Your task to perform on an android device: change notification settings in the gmail app Image 0: 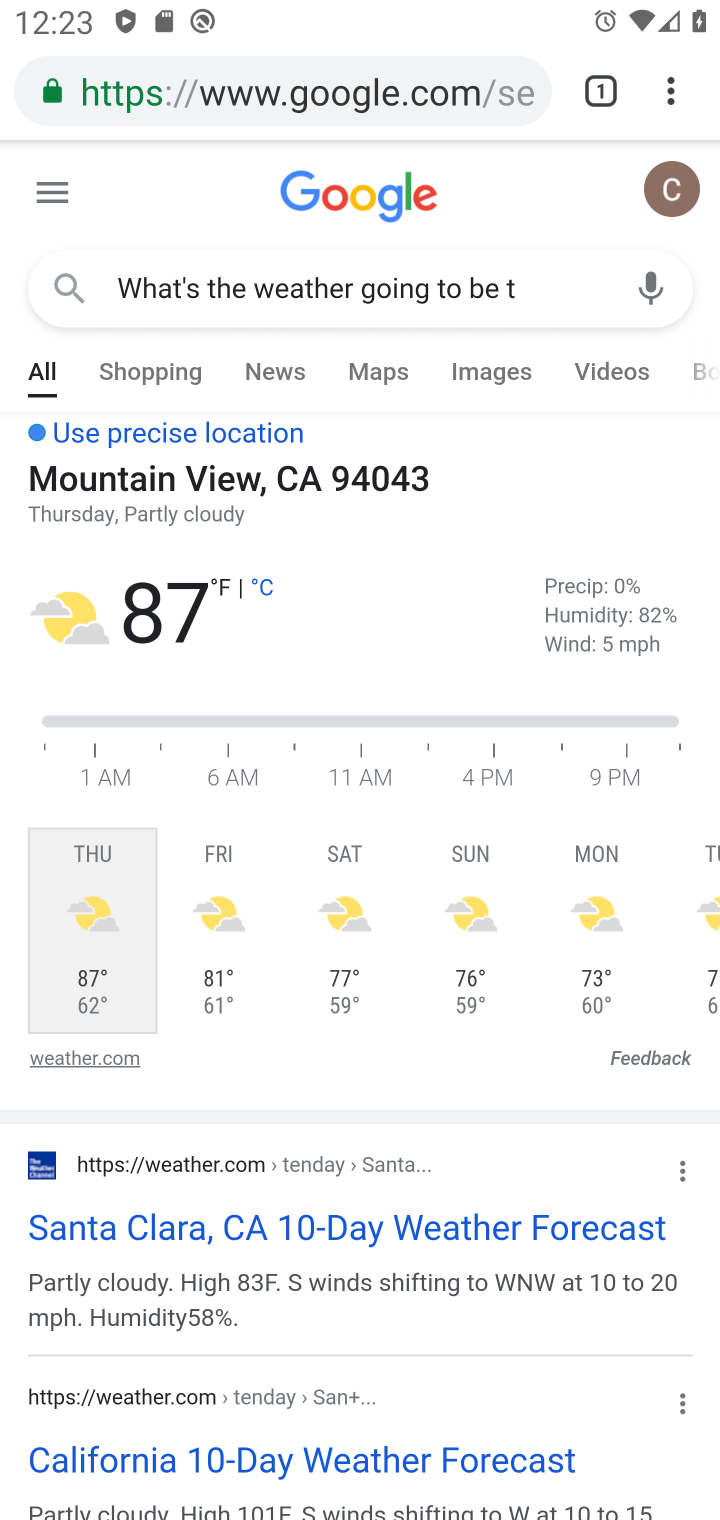
Step 0: press home button
Your task to perform on an android device: change notification settings in the gmail app Image 1: 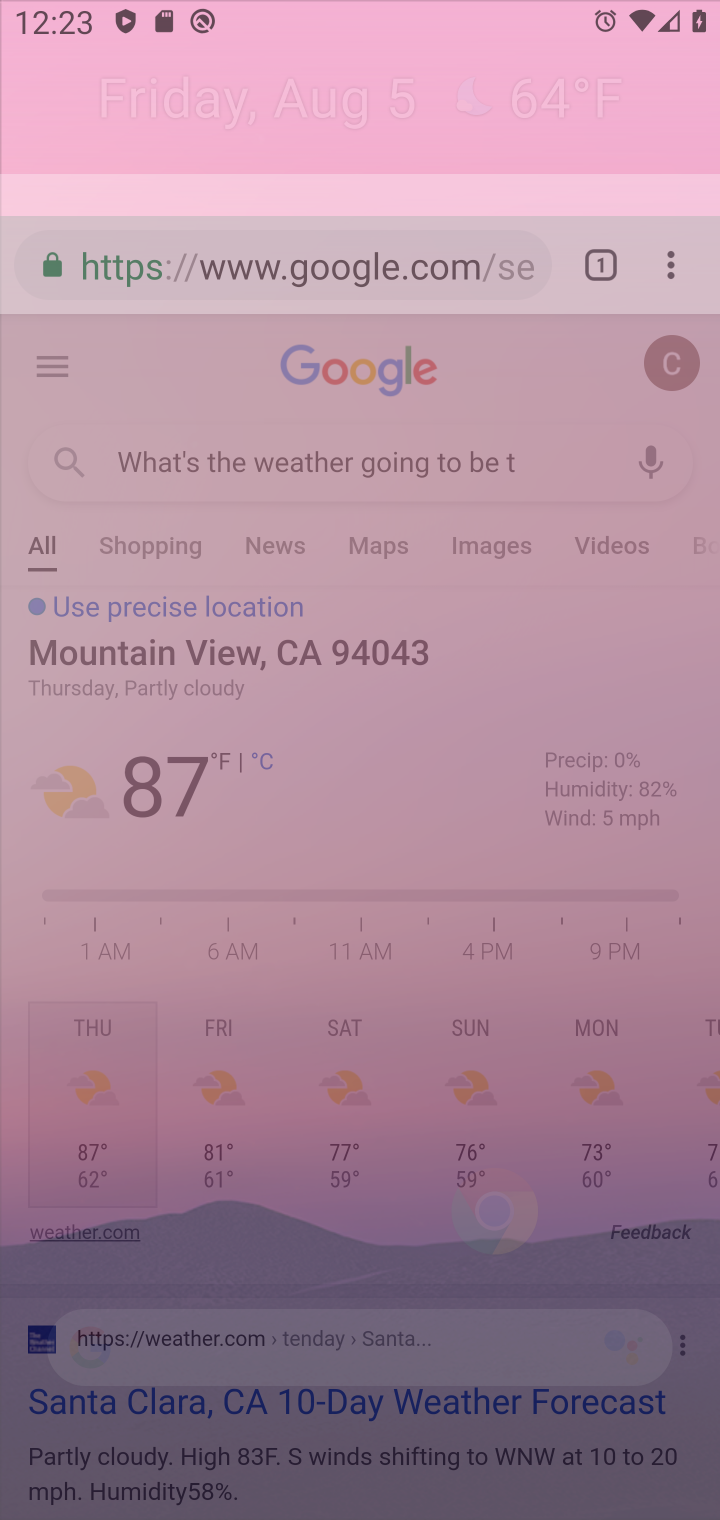
Step 1: drag from (341, 1435) to (360, 60)
Your task to perform on an android device: change notification settings in the gmail app Image 2: 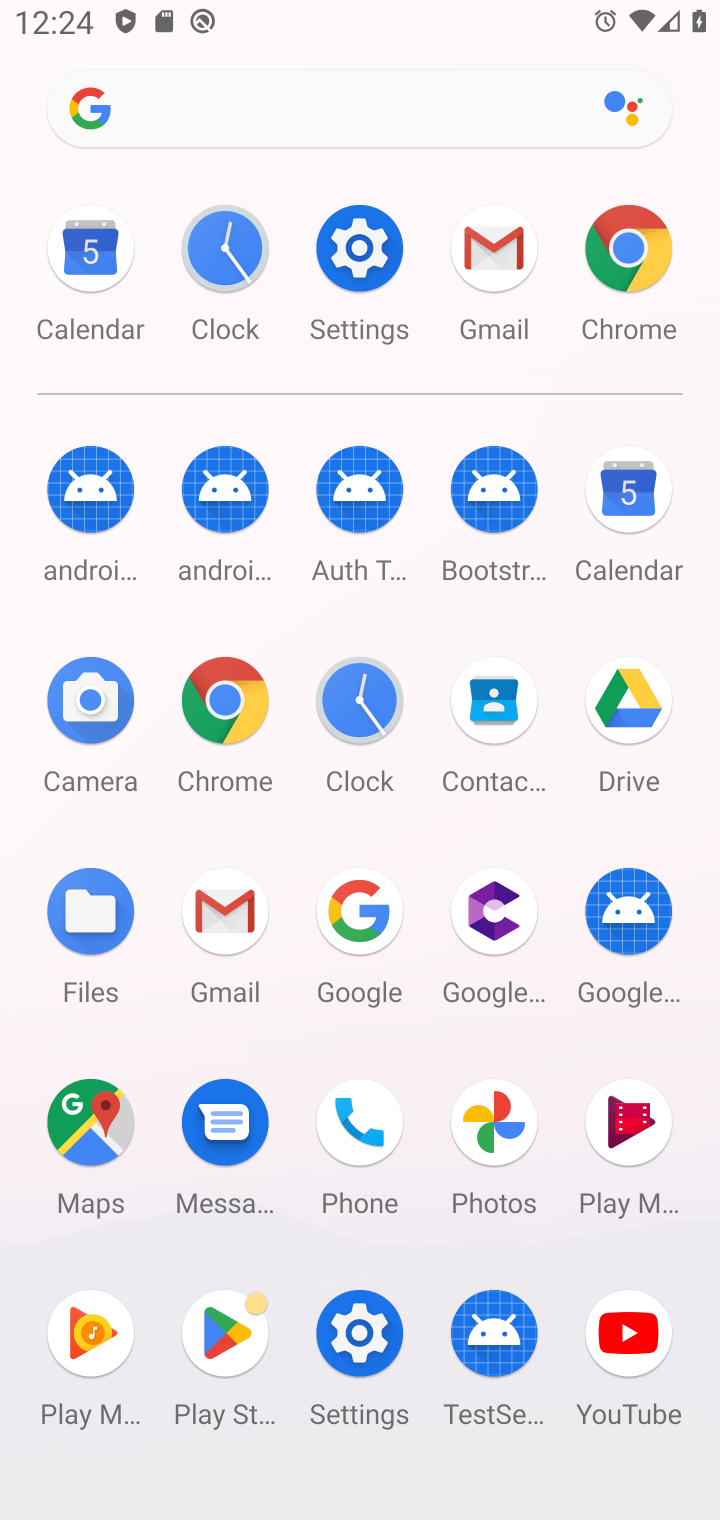
Step 2: click (225, 941)
Your task to perform on an android device: change notification settings in the gmail app Image 3: 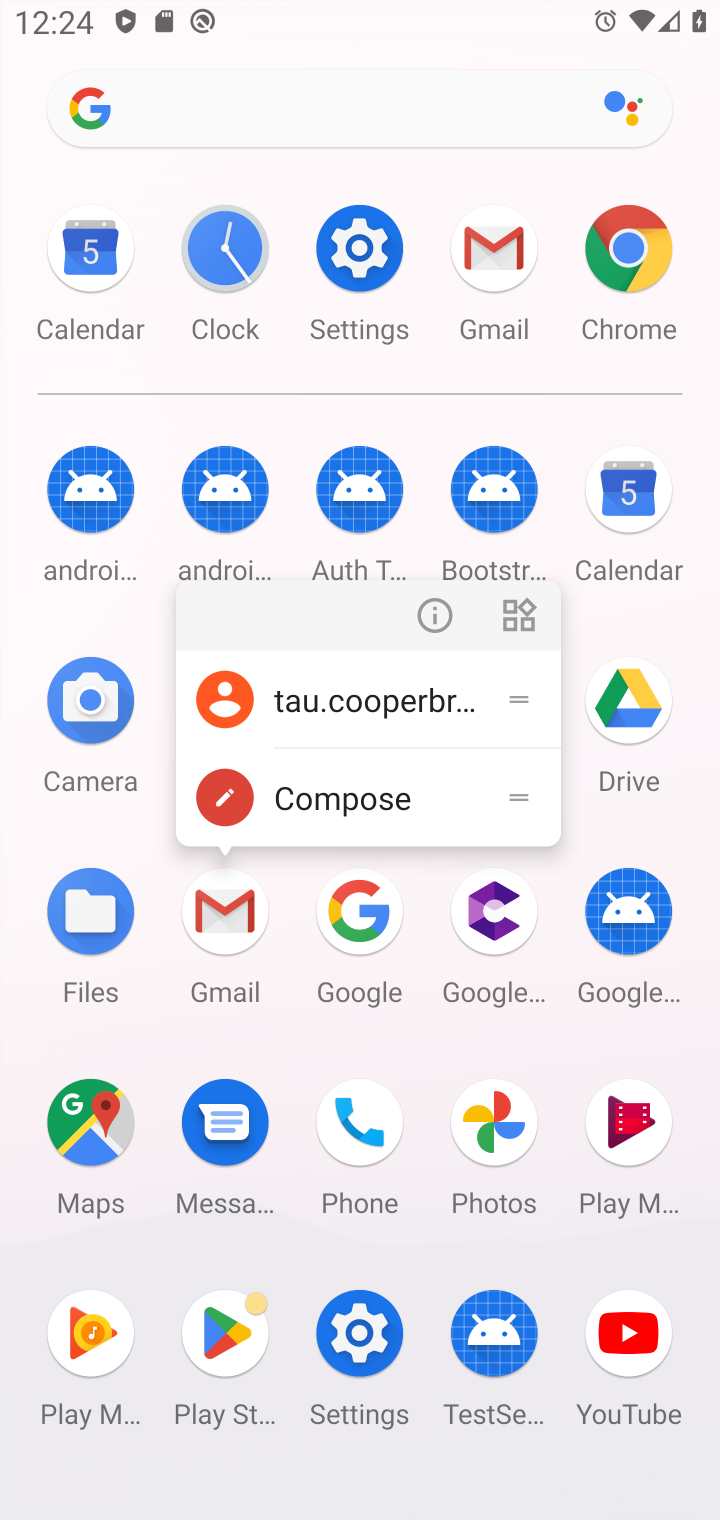
Step 3: click (209, 907)
Your task to perform on an android device: change notification settings in the gmail app Image 4: 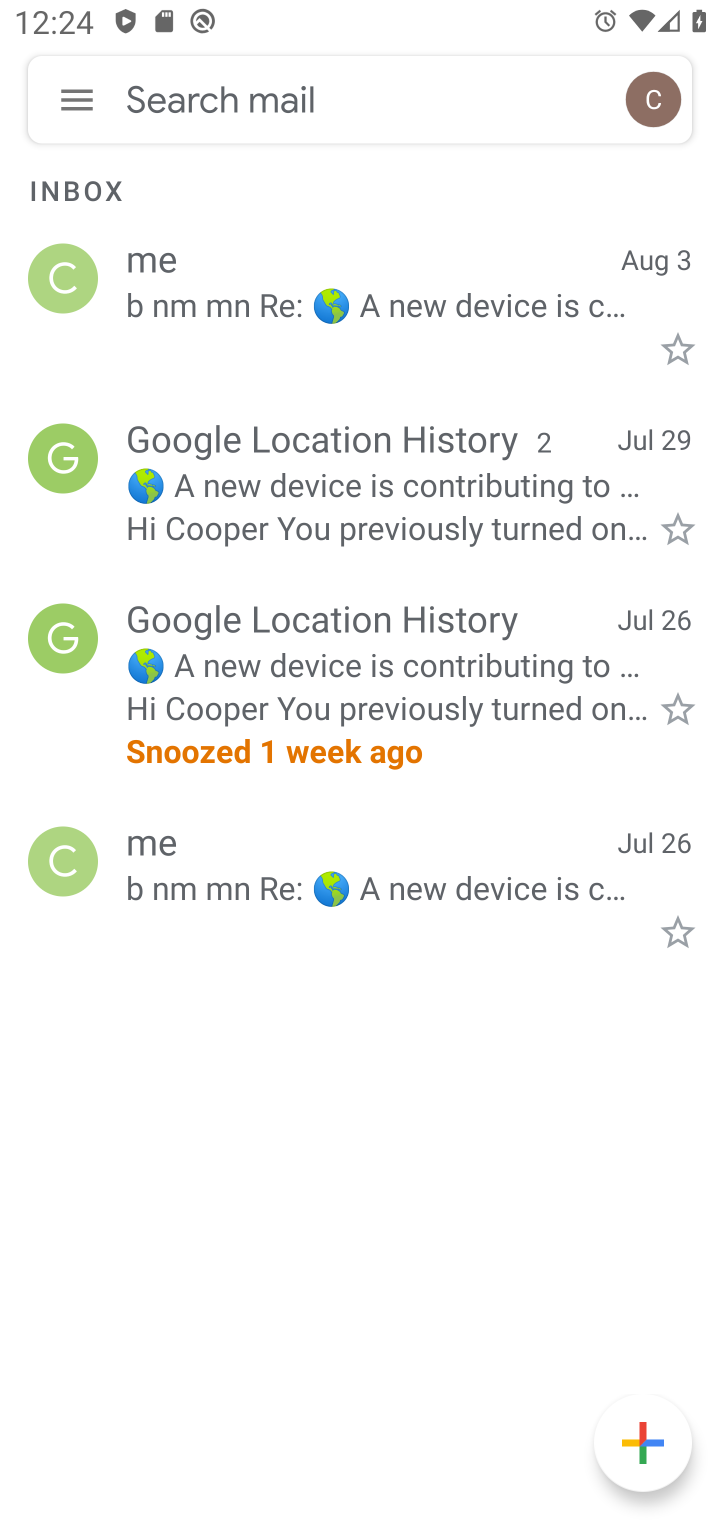
Step 4: press home button
Your task to perform on an android device: change notification settings in the gmail app Image 5: 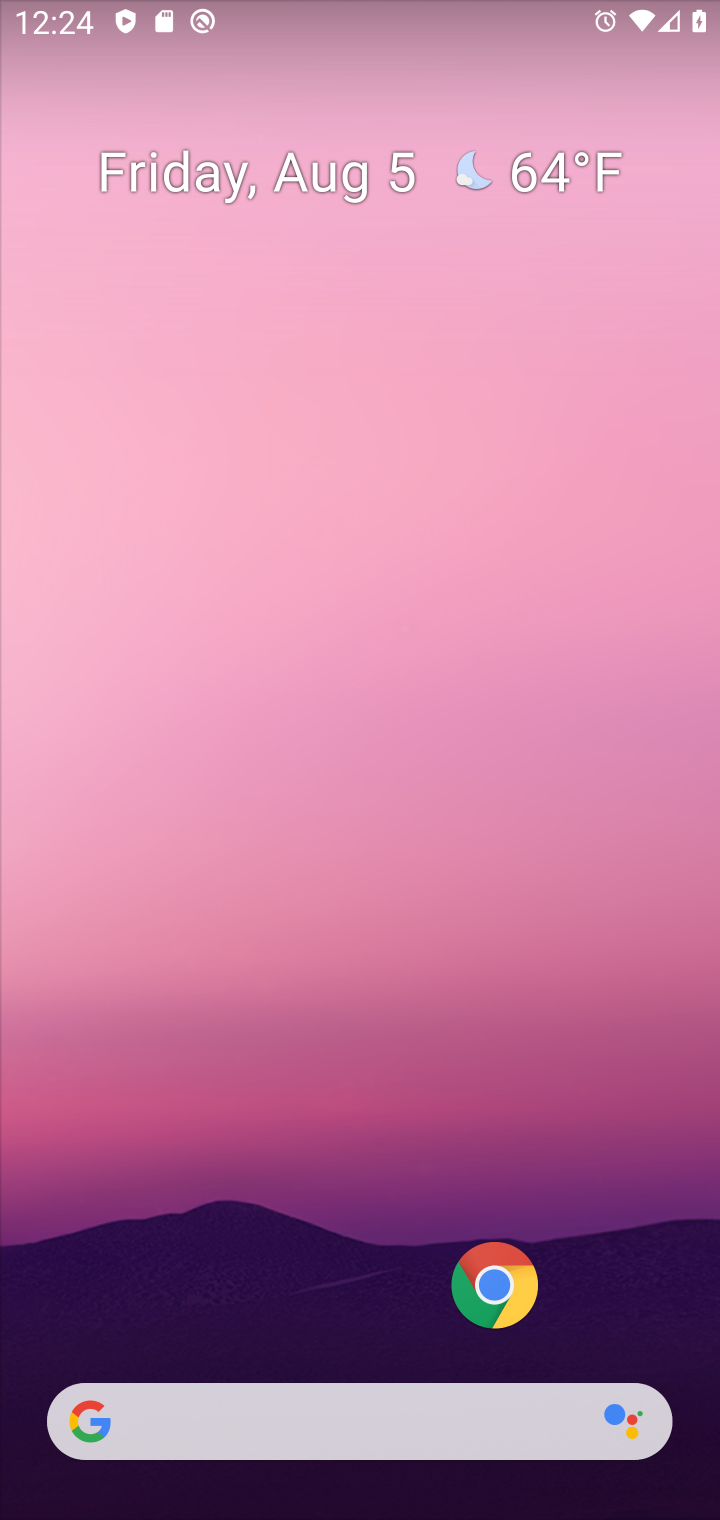
Step 5: drag from (280, 1248) to (302, 296)
Your task to perform on an android device: change notification settings in the gmail app Image 6: 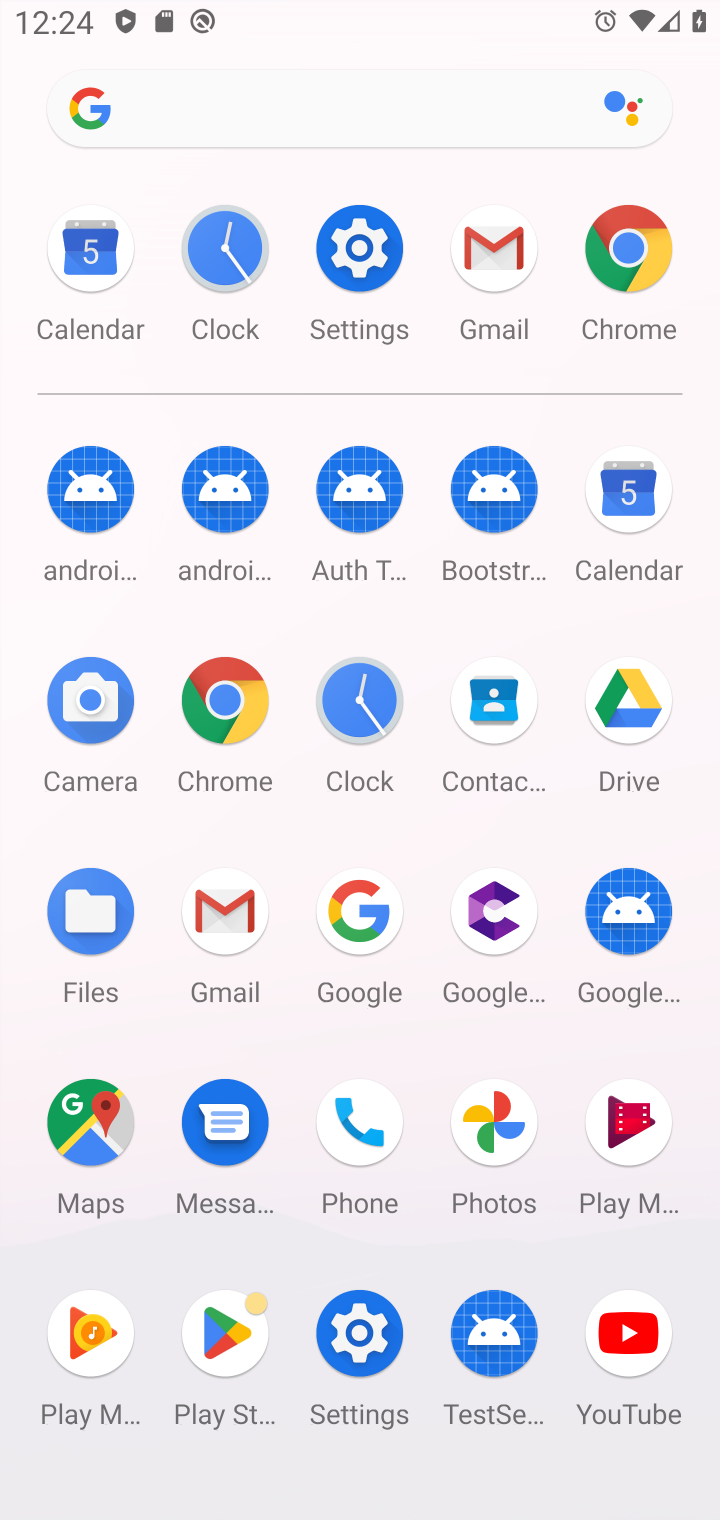
Step 6: click (537, 271)
Your task to perform on an android device: change notification settings in the gmail app Image 7: 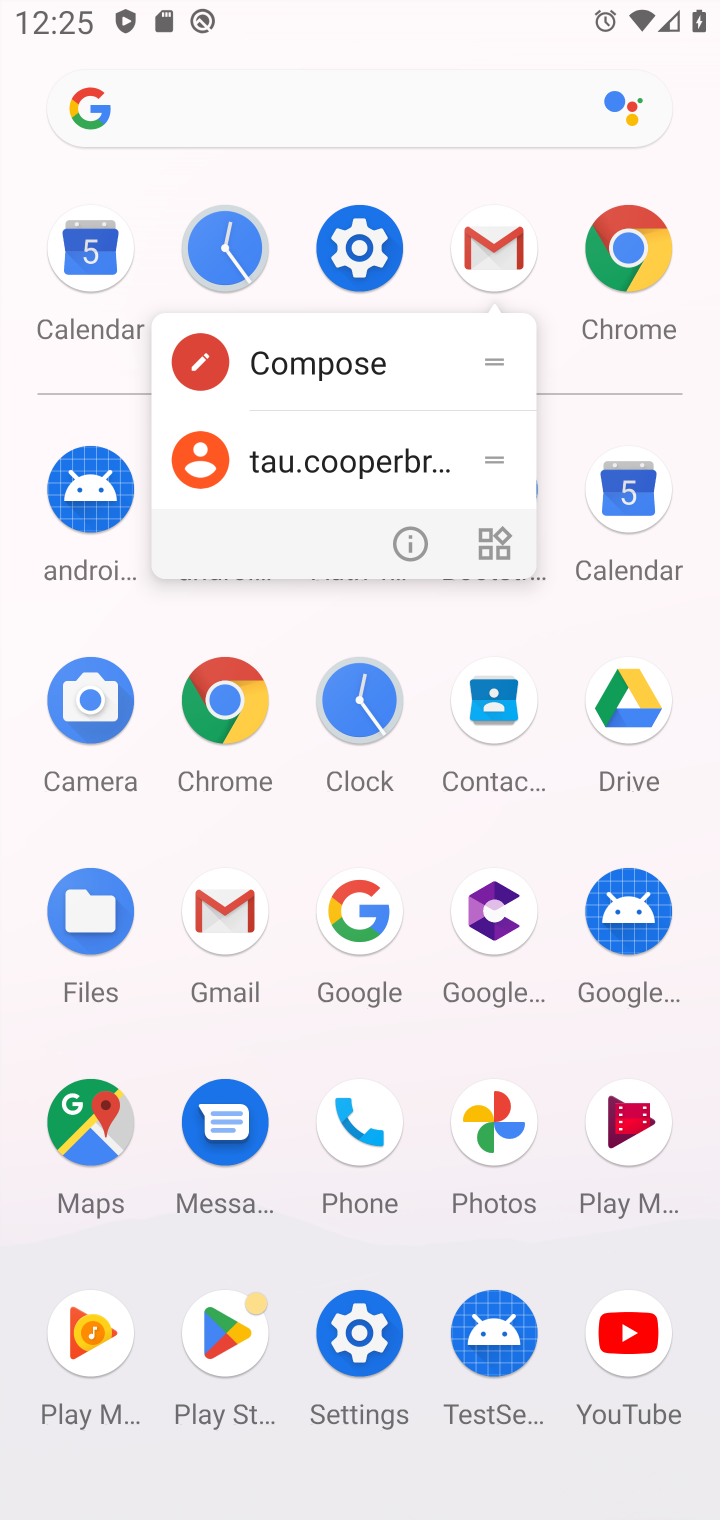
Step 7: click (409, 541)
Your task to perform on an android device: change notification settings in the gmail app Image 8: 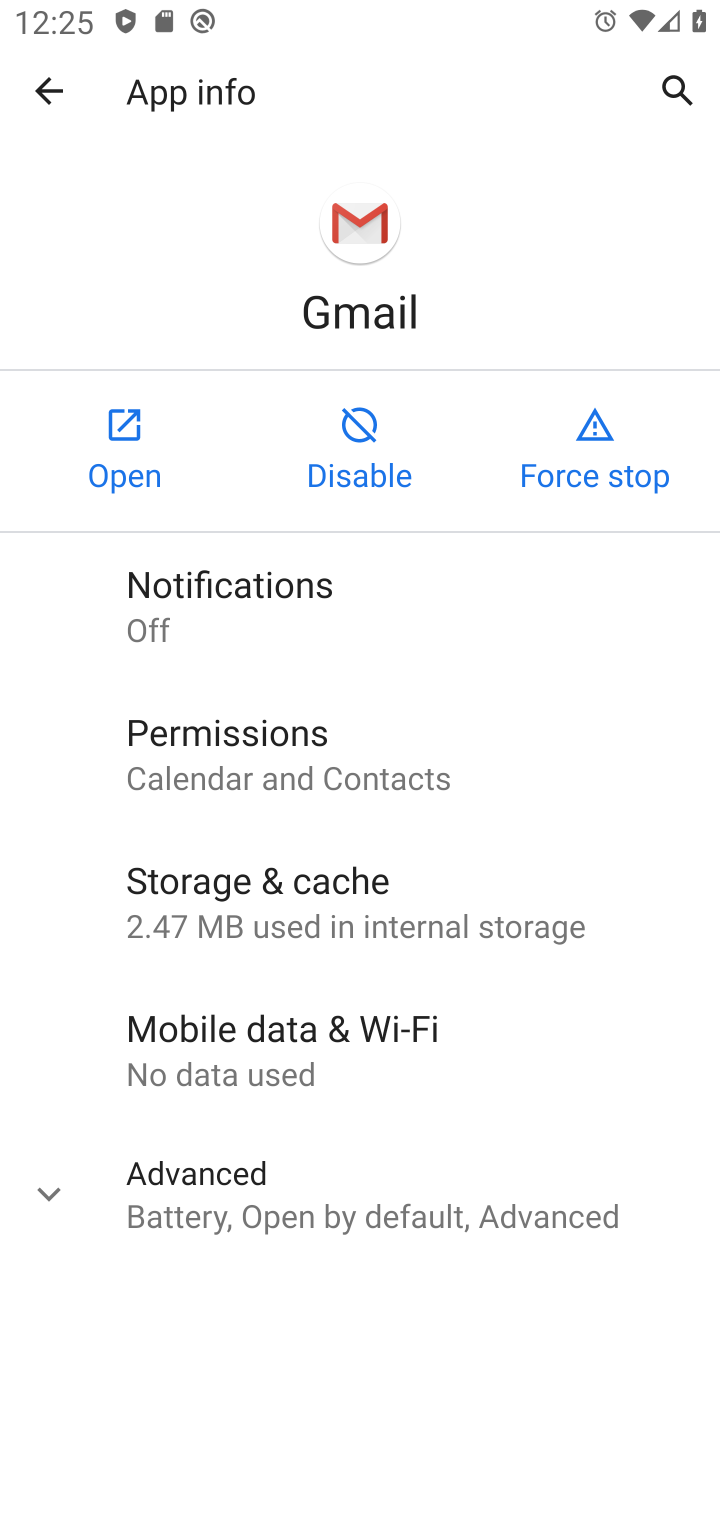
Step 8: click (358, 632)
Your task to perform on an android device: change notification settings in the gmail app Image 9: 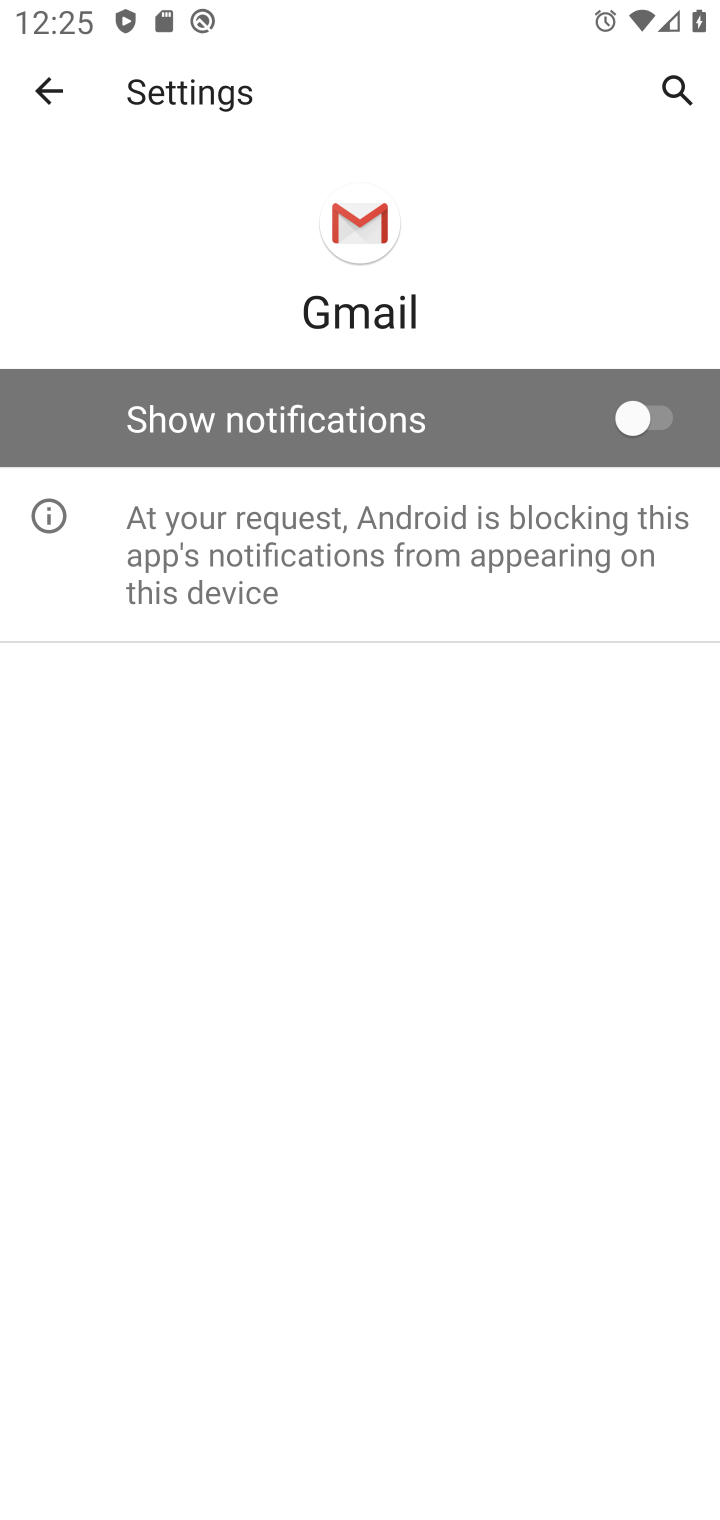
Step 9: click (221, 425)
Your task to perform on an android device: change notification settings in the gmail app Image 10: 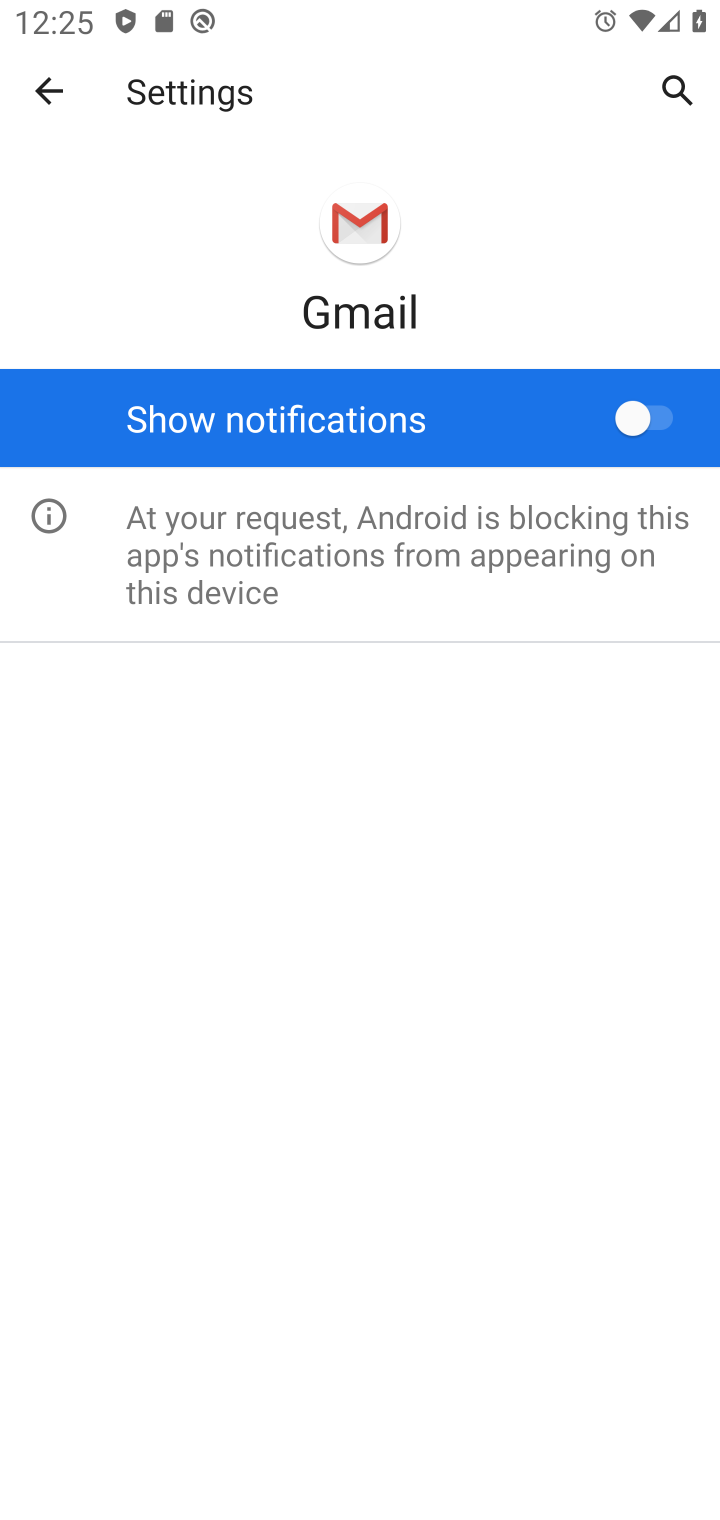
Step 10: task complete